Your task to perform on an android device: Open calendar and show me the fourth week of next month Image 0: 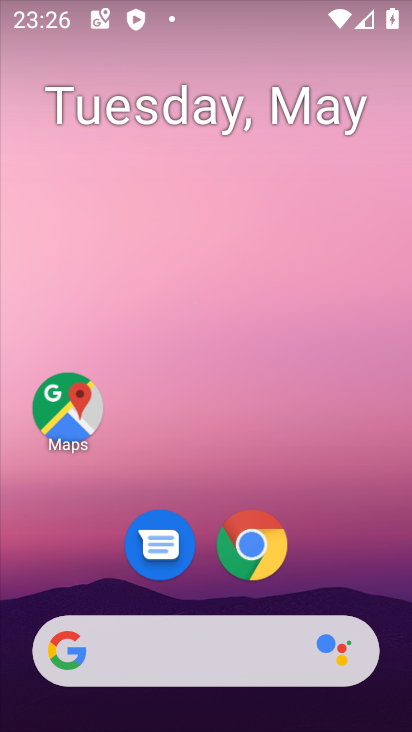
Step 0: drag from (191, 541) to (191, 230)
Your task to perform on an android device: Open calendar and show me the fourth week of next month Image 1: 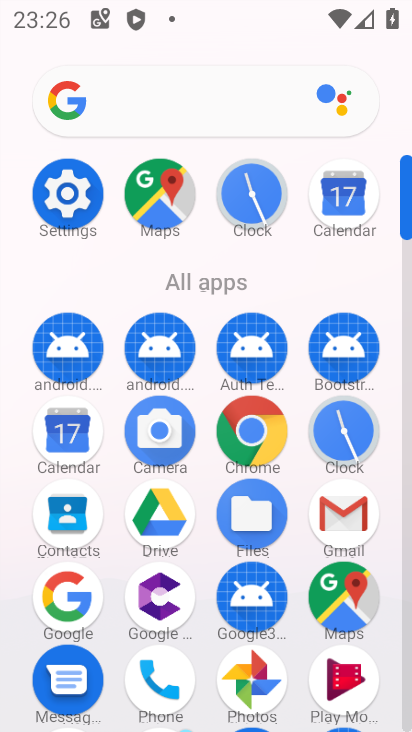
Step 1: click (68, 436)
Your task to perform on an android device: Open calendar and show me the fourth week of next month Image 2: 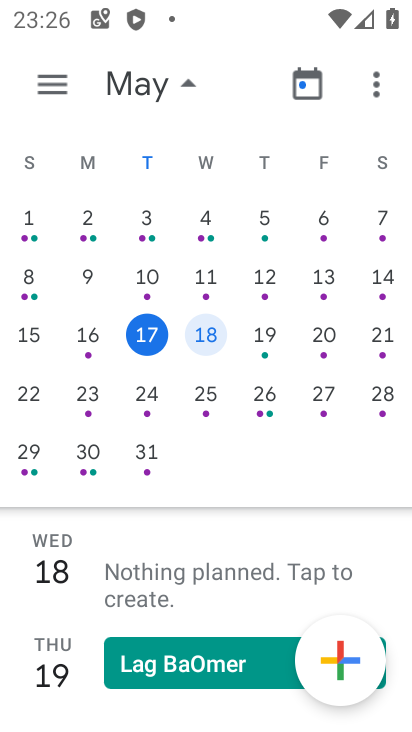
Step 2: drag from (398, 314) to (68, 322)
Your task to perform on an android device: Open calendar and show me the fourth week of next month Image 3: 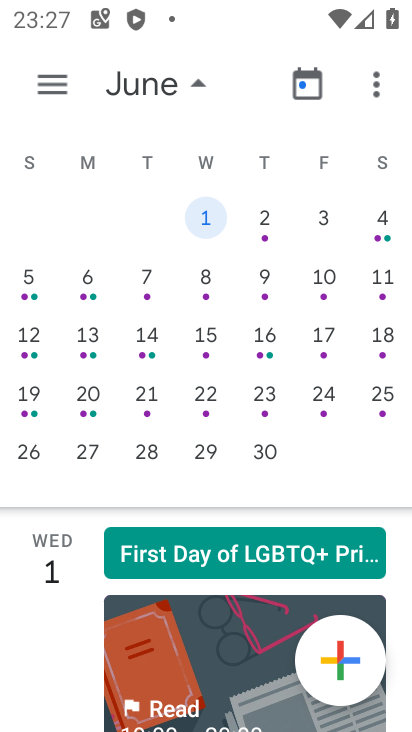
Step 3: click (268, 387)
Your task to perform on an android device: Open calendar and show me the fourth week of next month Image 4: 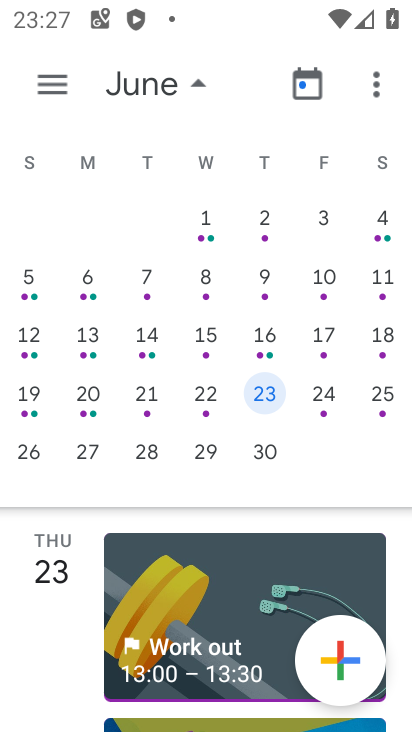
Step 4: click (36, 89)
Your task to perform on an android device: Open calendar and show me the fourth week of next month Image 5: 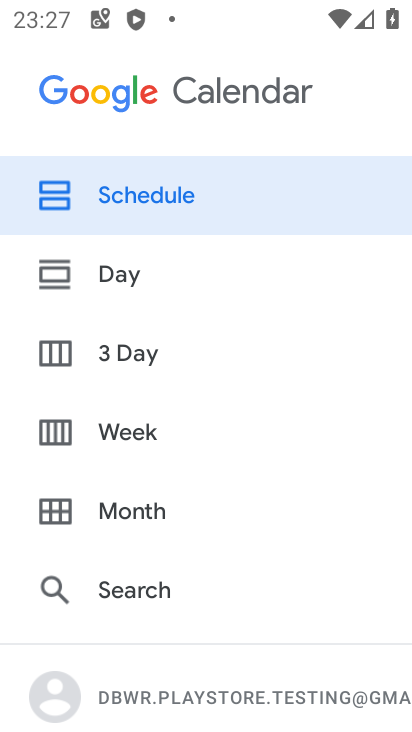
Step 5: click (125, 442)
Your task to perform on an android device: Open calendar and show me the fourth week of next month Image 6: 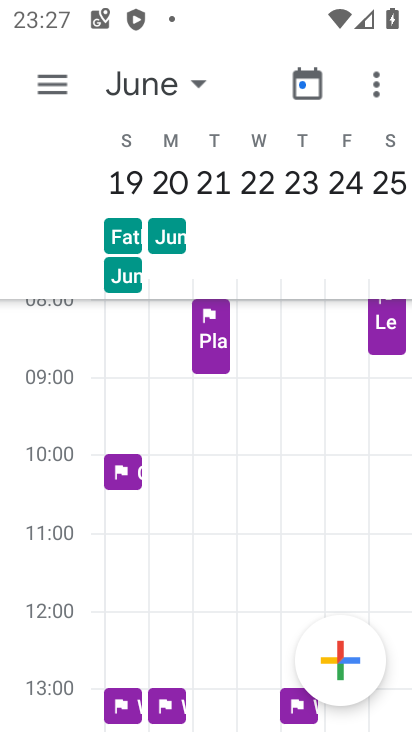
Step 6: task complete